Your task to perform on an android device: turn off improve location accuracy Image 0: 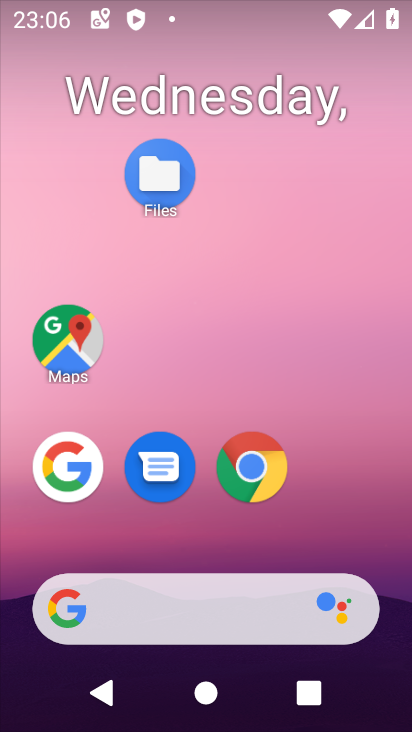
Step 0: drag from (186, 557) to (141, 186)
Your task to perform on an android device: turn off improve location accuracy Image 1: 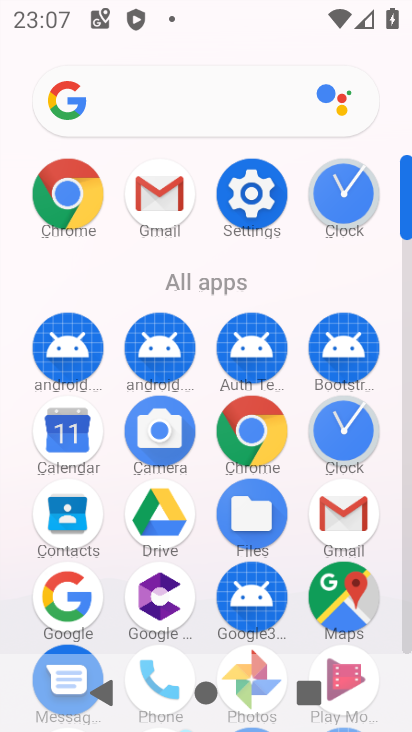
Step 1: click (267, 190)
Your task to perform on an android device: turn off improve location accuracy Image 2: 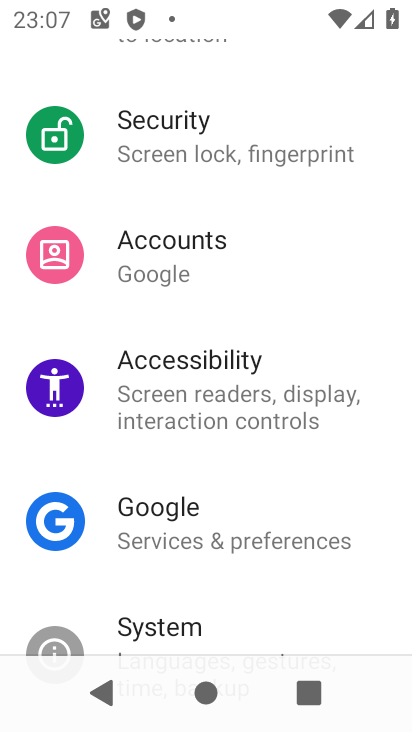
Step 2: drag from (267, 190) to (298, 603)
Your task to perform on an android device: turn off improve location accuracy Image 3: 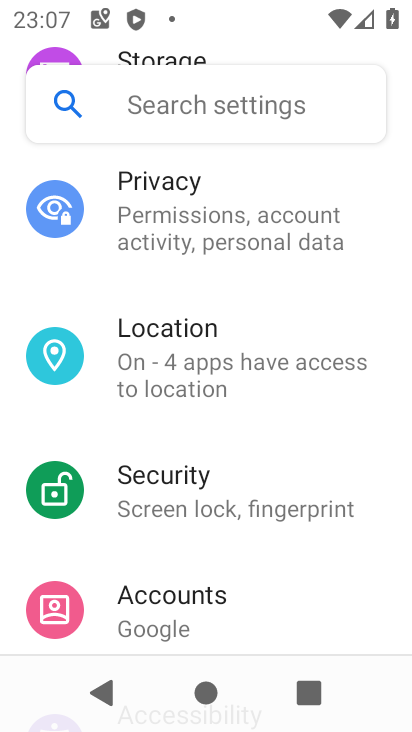
Step 3: click (152, 340)
Your task to perform on an android device: turn off improve location accuracy Image 4: 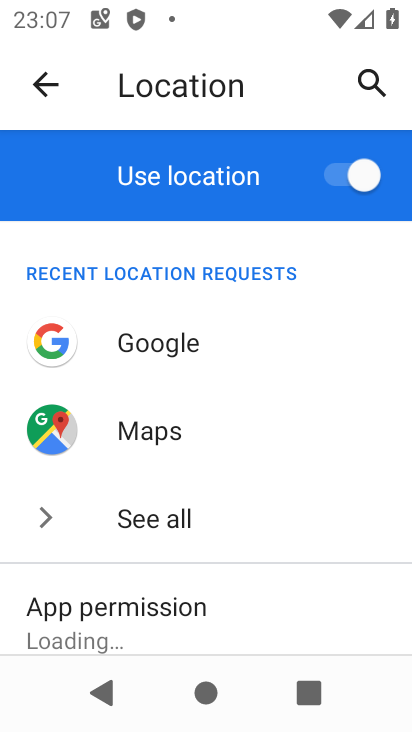
Step 4: drag from (202, 602) to (95, 203)
Your task to perform on an android device: turn off improve location accuracy Image 5: 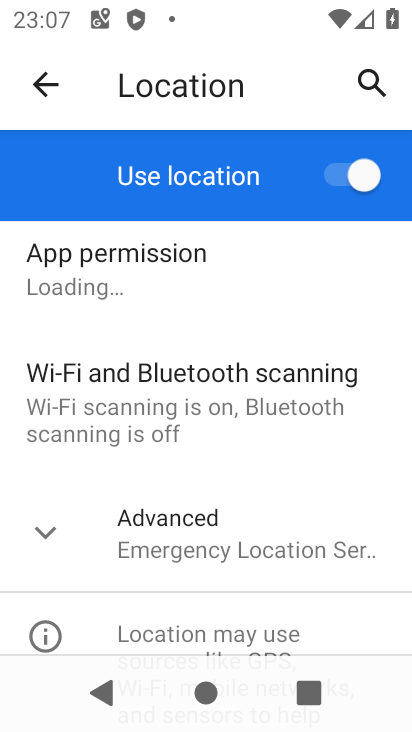
Step 5: click (252, 517)
Your task to perform on an android device: turn off improve location accuracy Image 6: 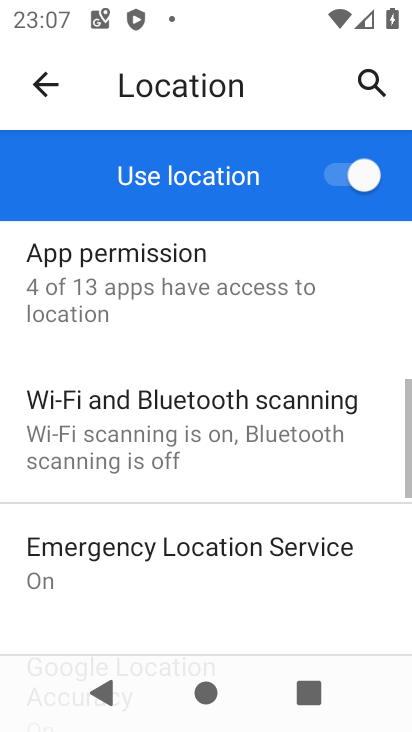
Step 6: drag from (252, 517) to (191, 281)
Your task to perform on an android device: turn off improve location accuracy Image 7: 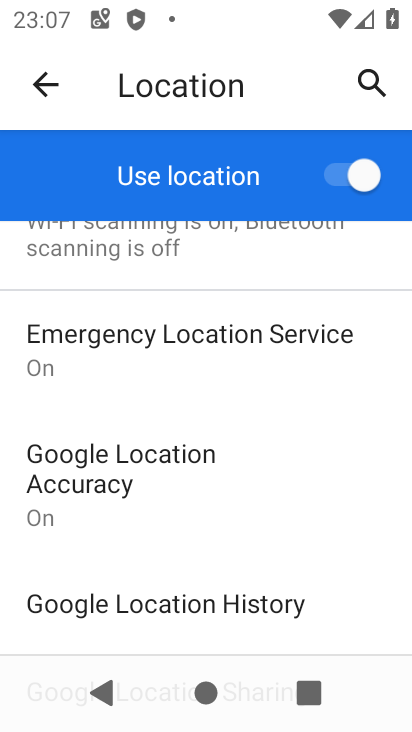
Step 7: click (101, 466)
Your task to perform on an android device: turn off improve location accuracy Image 8: 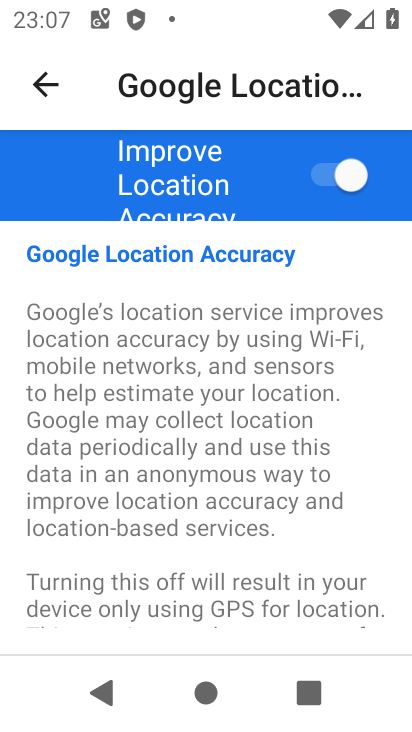
Step 8: click (350, 191)
Your task to perform on an android device: turn off improve location accuracy Image 9: 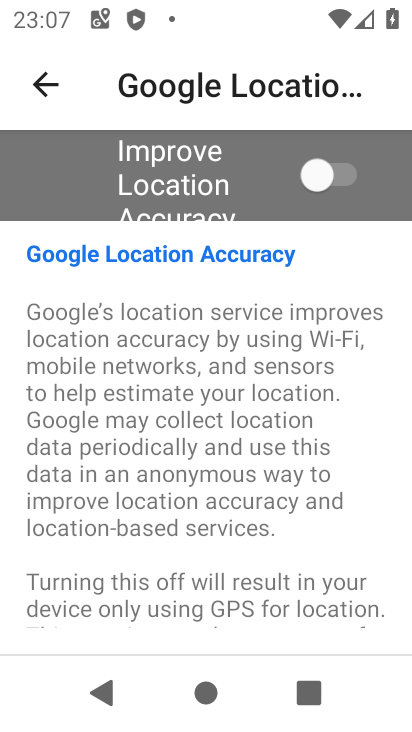
Step 9: task complete